Your task to perform on an android device: Go to accessibility settings Image 0: 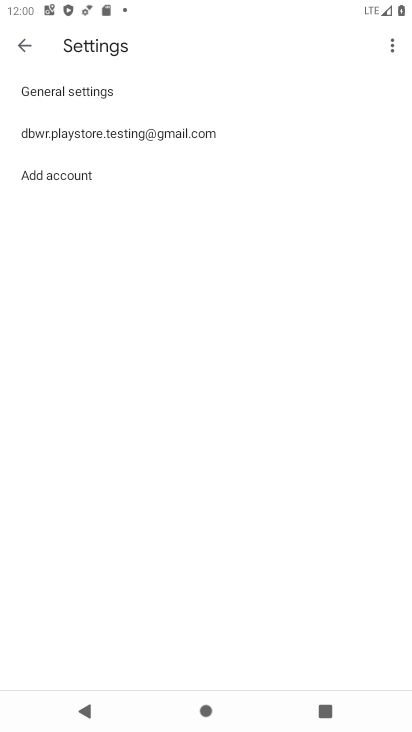
Step 0: press home button
Your task to perform on an android device: Go to accessibility settings Image 1: 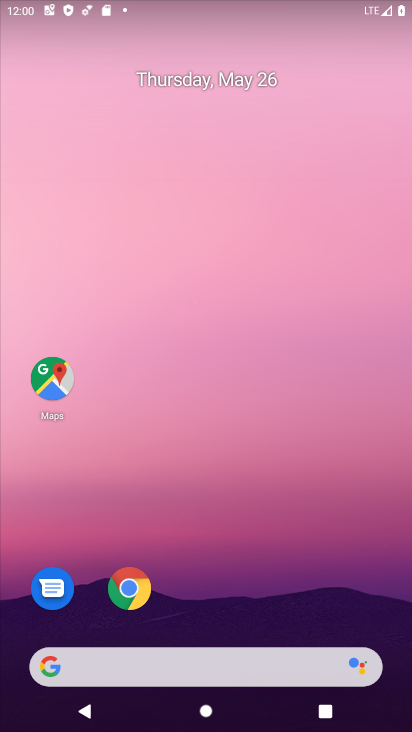
Step 1: drag from (236, 533) to (221, 0)
Your task to perform on an android device: Go to accessibility settings Image 2: 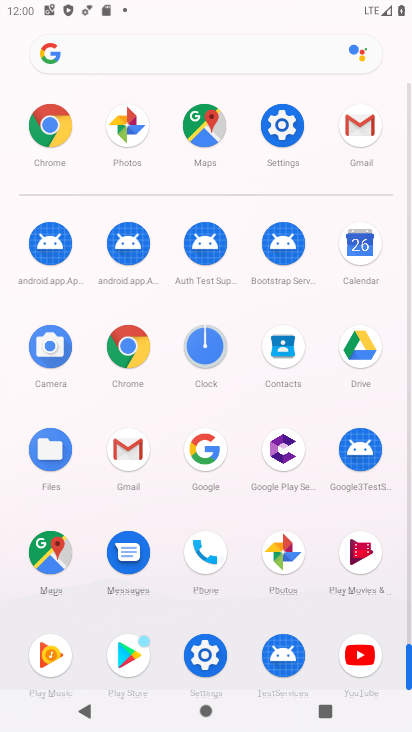
Step 2: click (203, 652)
Your task to perform on an android device: Go to accessibility settings Image 3: 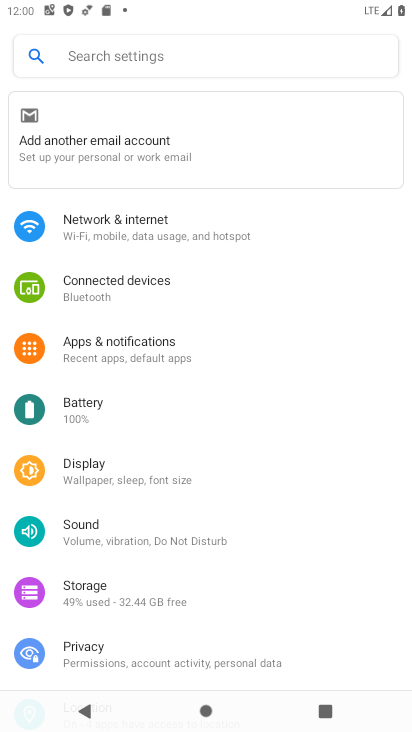
Step 3: drag from (271, 461) to (297, 193)
Your task to perform on an android device: Go to accessibility settings Image 4: 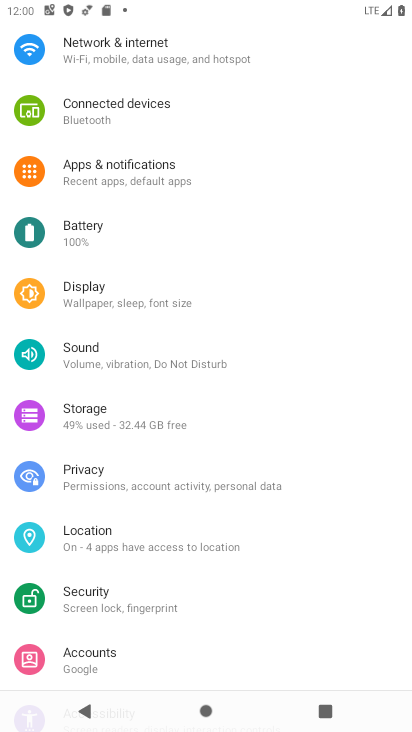
Step 4: drag from (212, 565) to (220, 179)
Your task to perform on an android device: Go to accessibility settings Image 5: 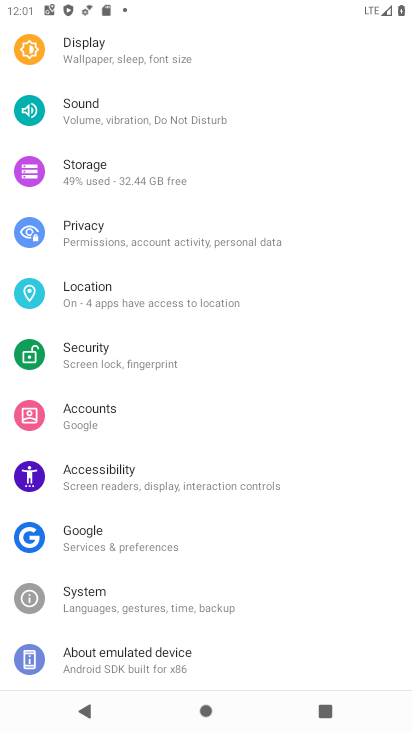
Step 5: click (136, 474)
Your task to perform on an android device: Go to accessibility settings Image 6: 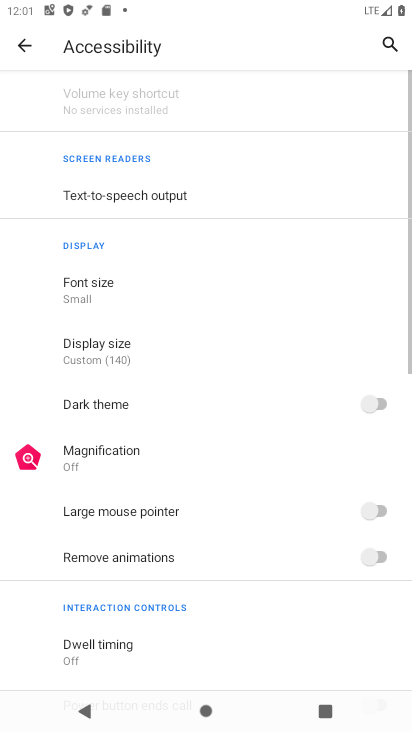
Step 6: task complete